Your task to perform on an android device: What is the news today? Image 0: 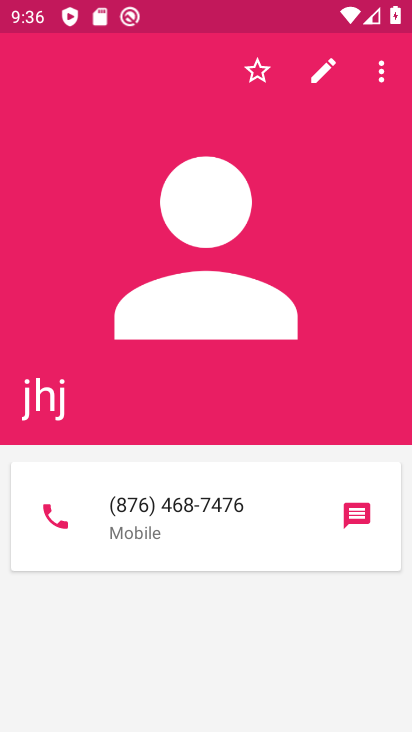
Step 0: press home button
Your task to perform on an android device: What is the news today? Image 1: 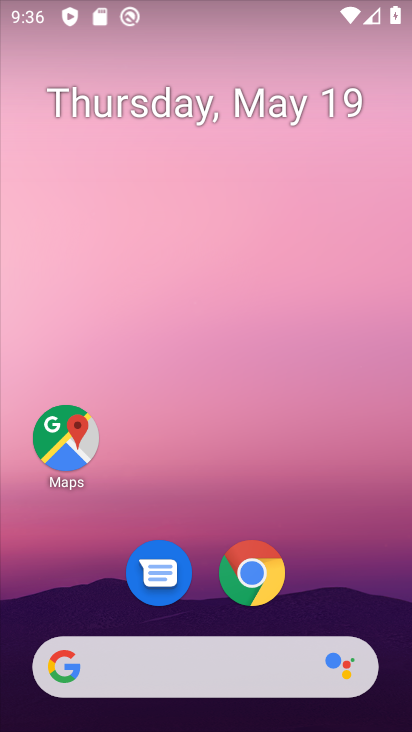
Step 1: drag from (205, 582) to (205, 166)
Your task to perform on an android device: What is the news today? Image 2: 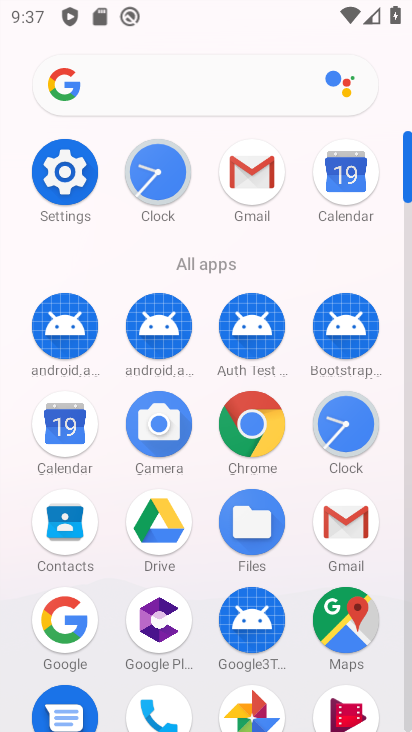
Step 2: click (77, 607)
Your task to perform on an android device: What is the news today? Image 3: 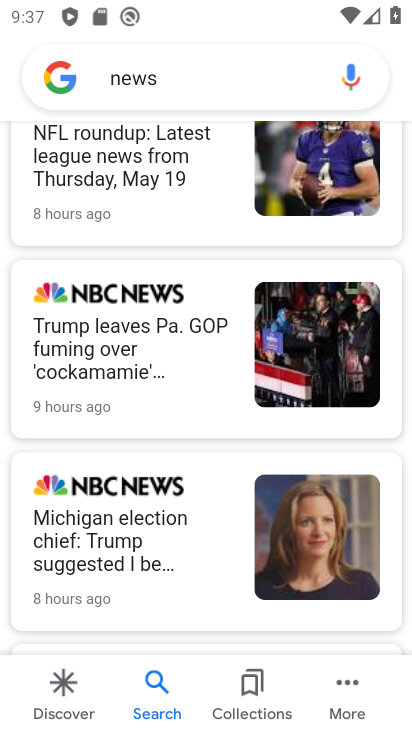
Step 3: click (194, 91)
Your task to perform on an android device: What is the news today? Image 4: 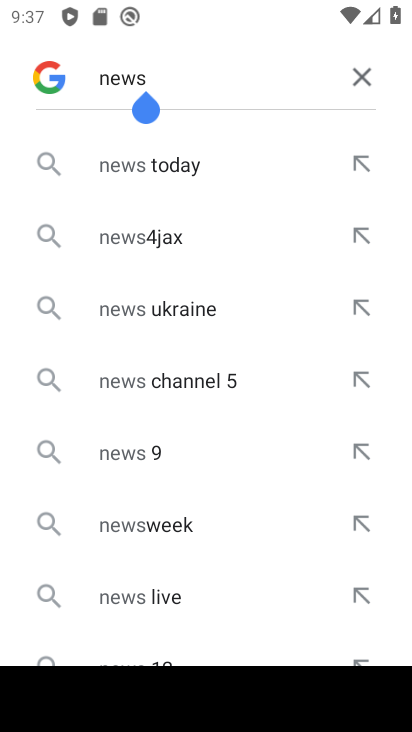
Step 4: click (166, 161)
Your task to perform on an android device: What is the news today? Image 5: 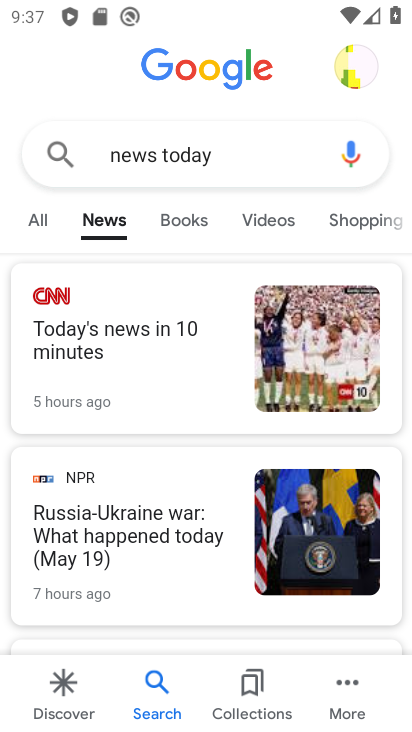
Step 5: task complete